Your task to perform on an android device: Show me recent news Image 0: 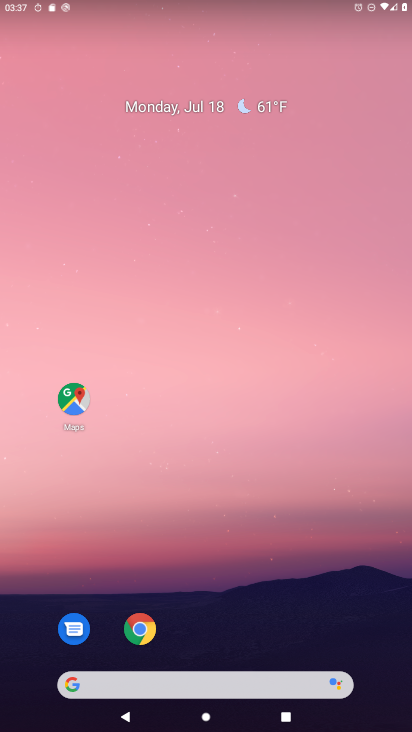
Step 0: drag from (198, 684) to (227, 266)
Your task to perform on an android device: Show me recent news Image 1: 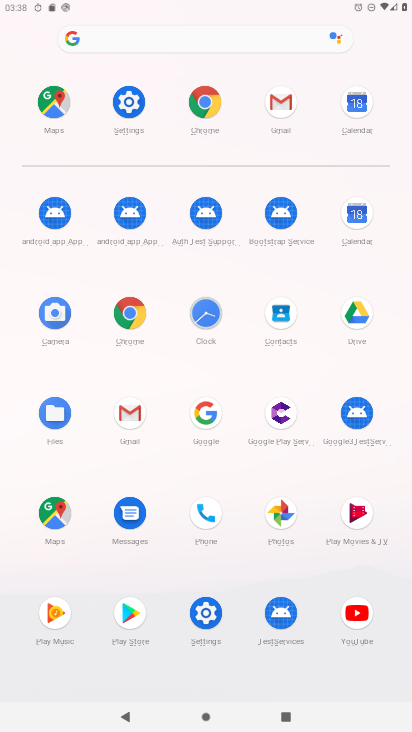
Step 1: click (203, 413)
Your task to perform on an android device: Show me recent news Image 2: 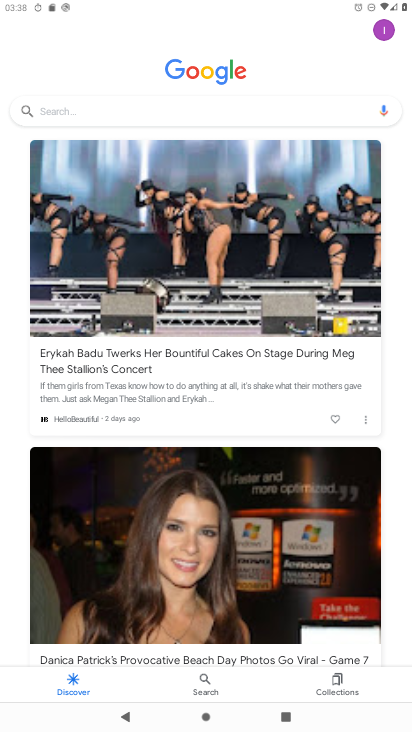
Step 2: click (163, 102)
Your task to perform on an android device: Show me recent news Image 3: 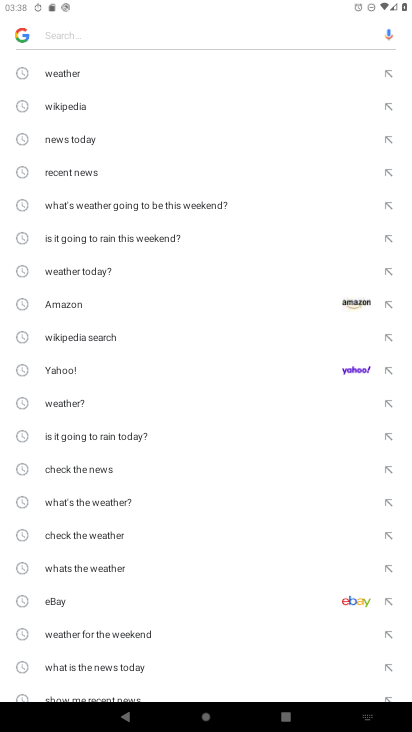
Step 3: click (76, 171)
Your task to perform on an android device: Show me recent news Image 4: 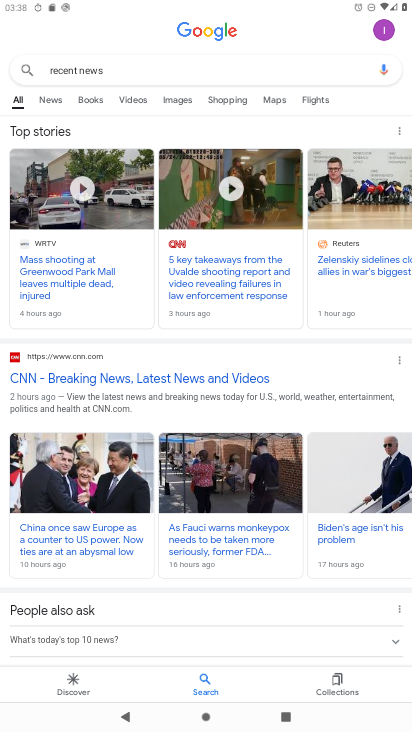
Step 4: click (56, 269)
Your task to perform on an android device: Show me recent news Image 5: 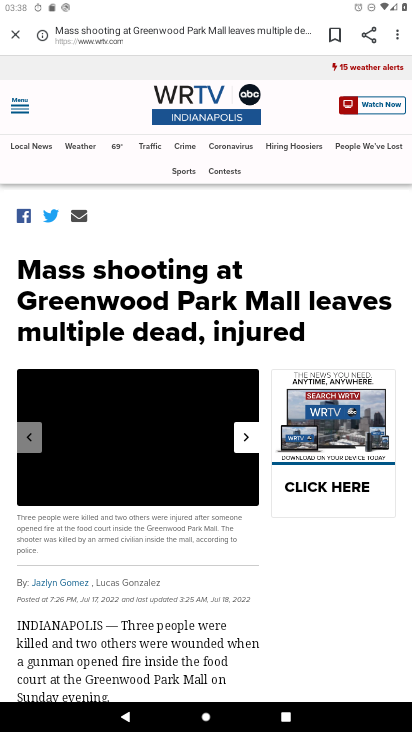
Step 5: task complete